Your task to perform on an android device: Open privacy settings Image 0: 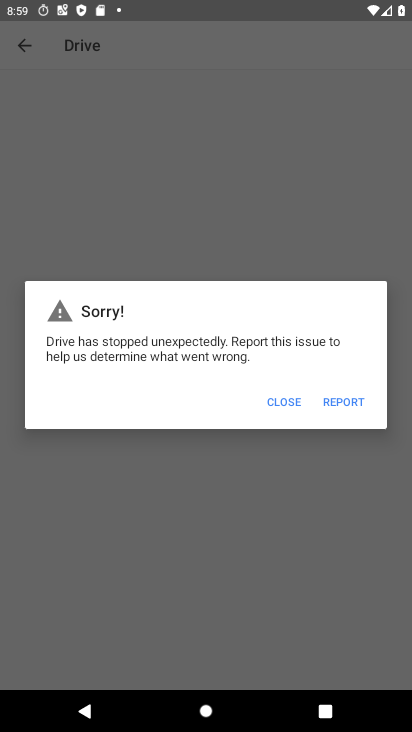
Step 0: press home button
Your task to perform on an android device: Open privacy settings Image 1: 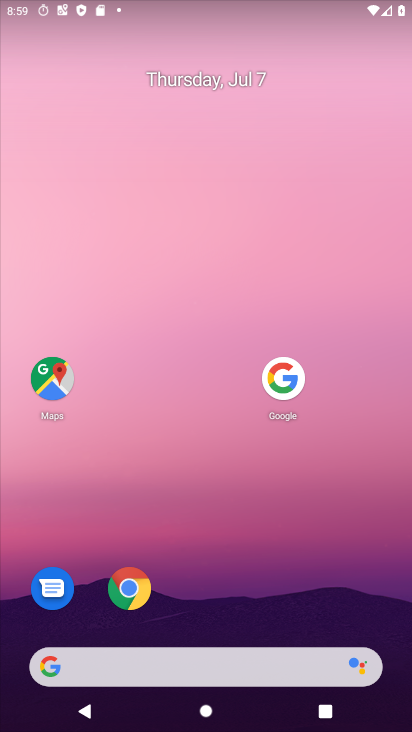
Step 1: drag from (219, 669) to (285, 33)
Your task to perform on an android device: Open privacy settings Image 2: 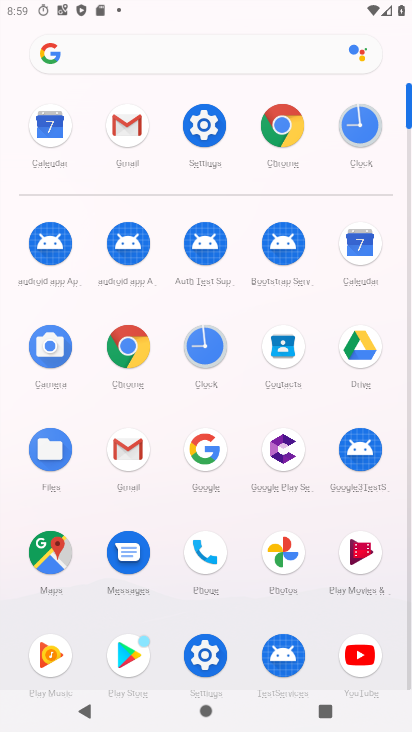
Step 2: click (205, 123)
Your task to perform on an android device: Open privacy settings Image 3: 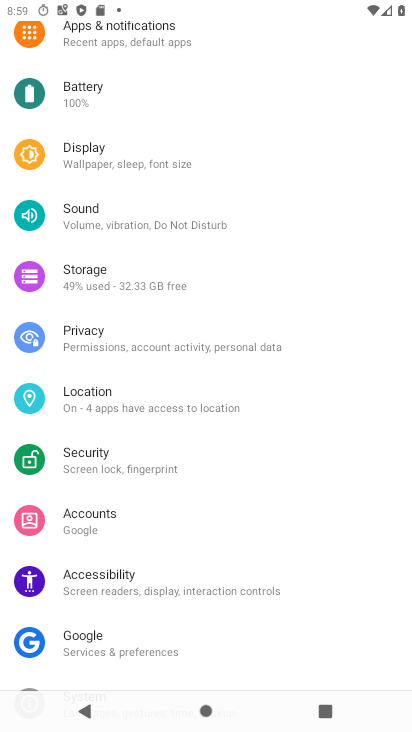
Step 3: drag from (219, 95) to (300, 12)
Your task to perform on an android device: Open privacy settings Image 4: 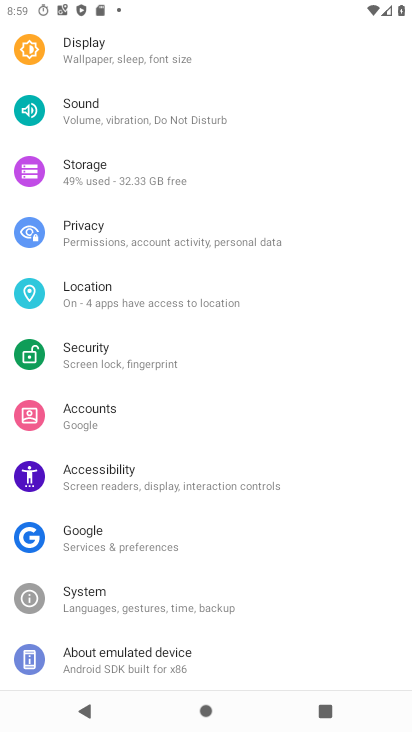
Step 4: click (145, 234)
Your task to perform on an android device: Open privacy settings Image 5: 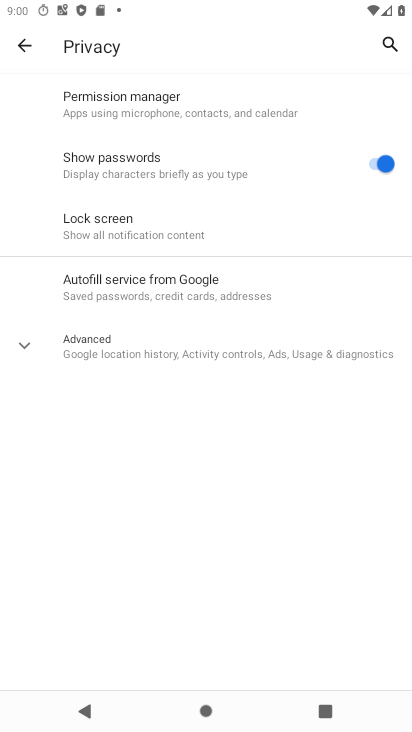
Step 5: task complete